Your task to perform on an android device: open chrome and create a bookmark for the current page Image 0: 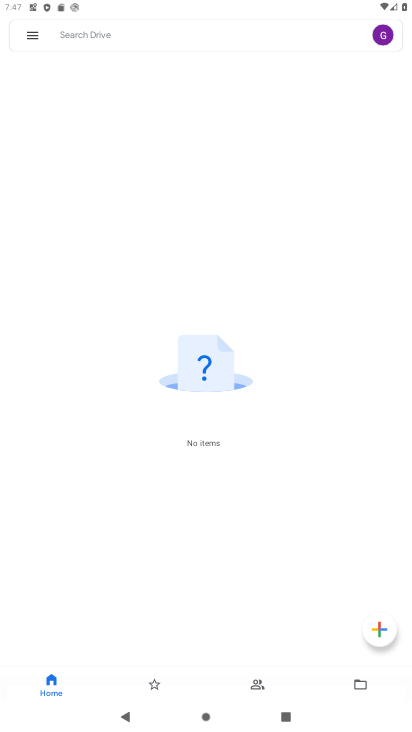
Step 0: press home button
Your task to perform on an android device: open chrome and create a bookmark for the current page Image 1: 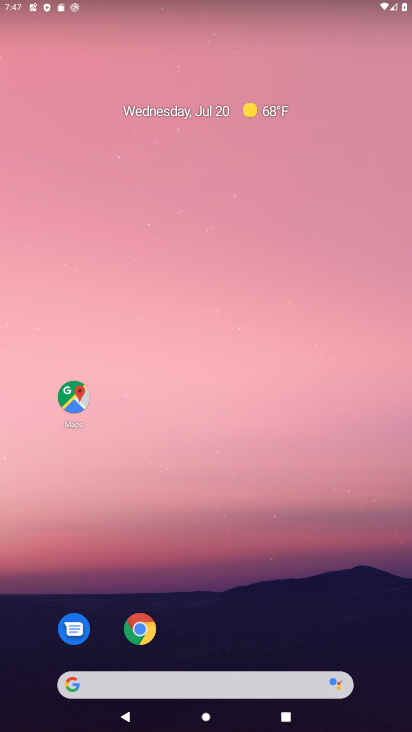
Step 1: drag from (365, 586) to (353, 59)
Your task to perform on an android device: open chrome and create a bookmark for the current page Image 2: 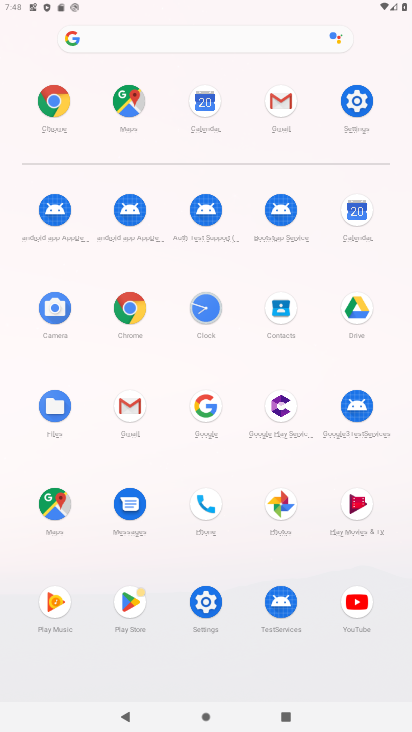
Step 2: click (134, 308)
Your task to perform on an android device: open chrome and create a bookmark for the current page Image 3: 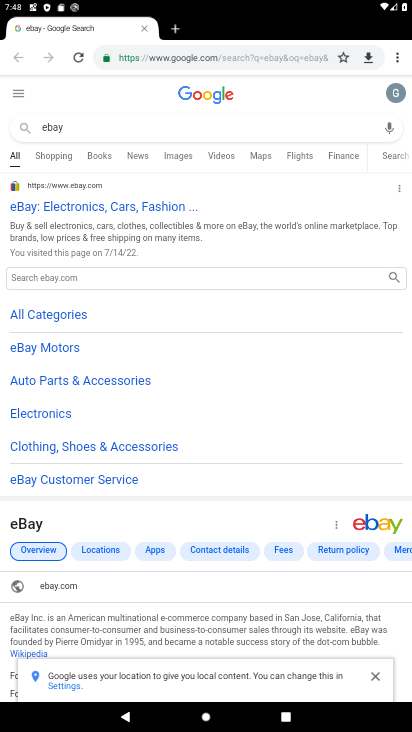
Step 3: click (341, 58)
Your task to perform on an android device: open chrome and create a bookmark for the current page Image 4: 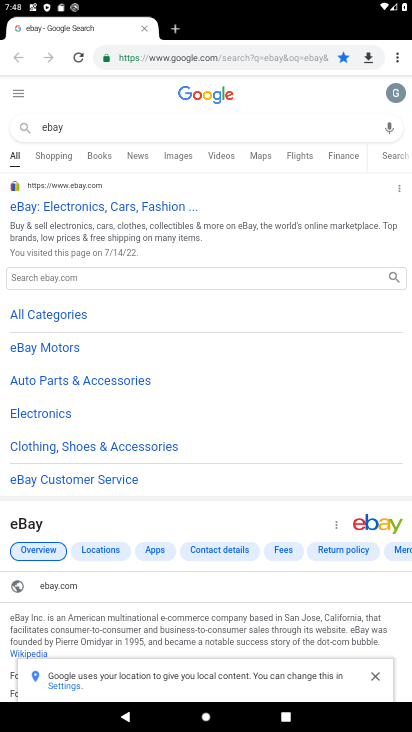
Step 4: task complete